Your task to perform on an android device: turn on improve location accuracy Image 0: 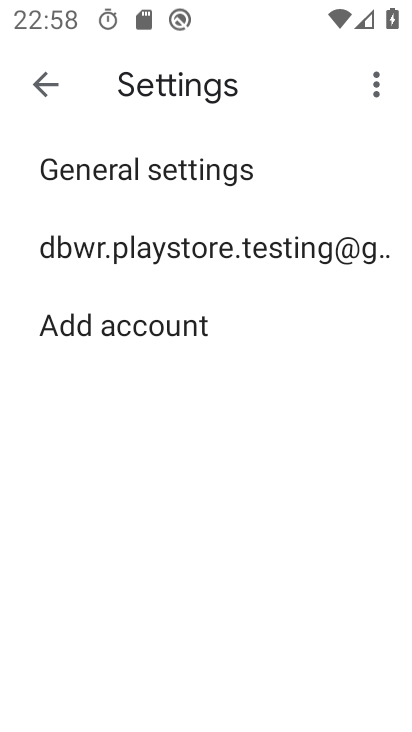
Step 0: press home button
Your task to perform on an android device: turn on improve location accuracy Image 1: 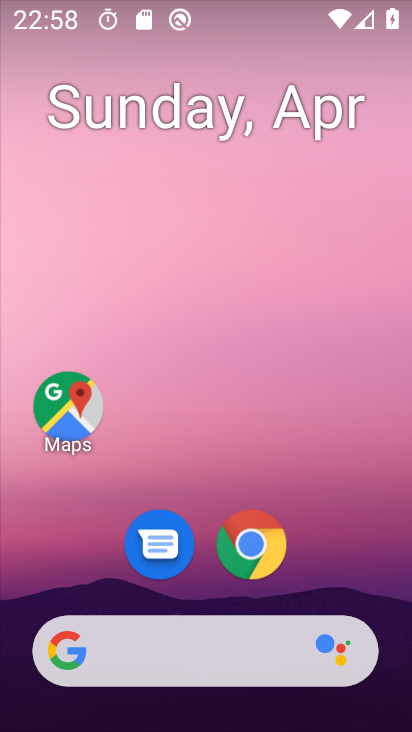
Step 1: drag from (329, 590) to (374, 204)
Your task to perform on an android device: turn on improve location accuracy Image 2: 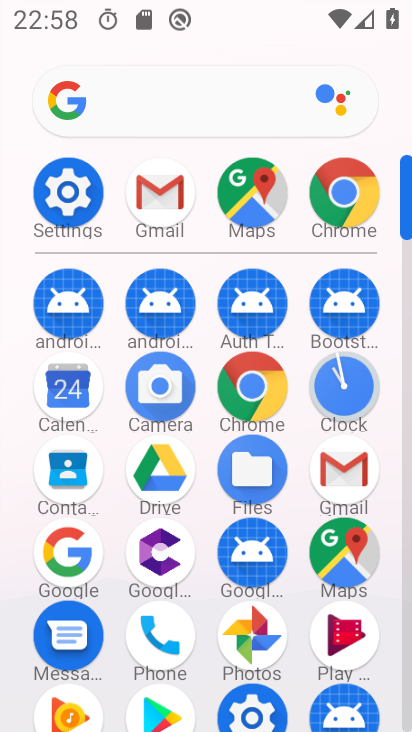
Step 2: click (71, 189)
Your task to perform on an android device: turn on improve location accuracy Image 3: 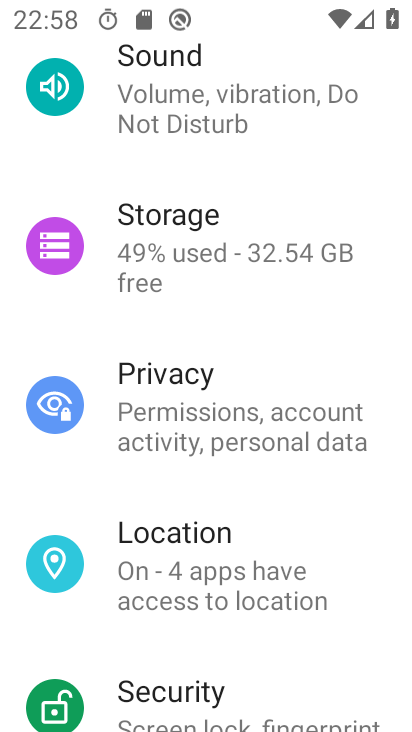
Step 3: click (266, 580)
Your task to perform on an android device: turn on improve location accuracy Image 4: 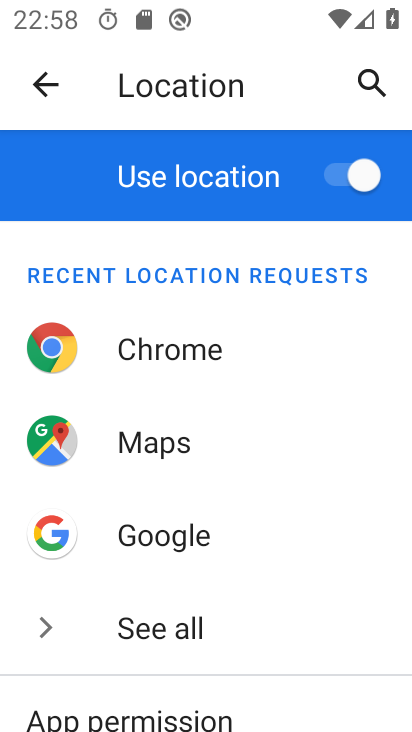
Step 4: drag from (304, 613) to (268, 116)
Your task to perform on an android device: turn on improve location accuracy Image 5: 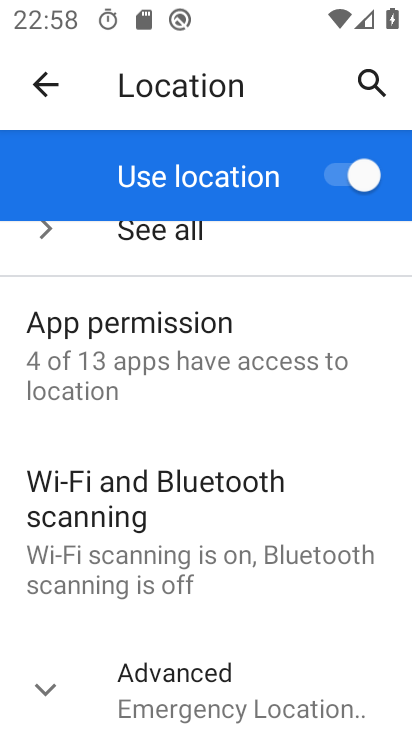
Step 5: drag from (208, 689) to (252, 226)
Your task to perform on an android device: turn on improve location accuracy Image 6: 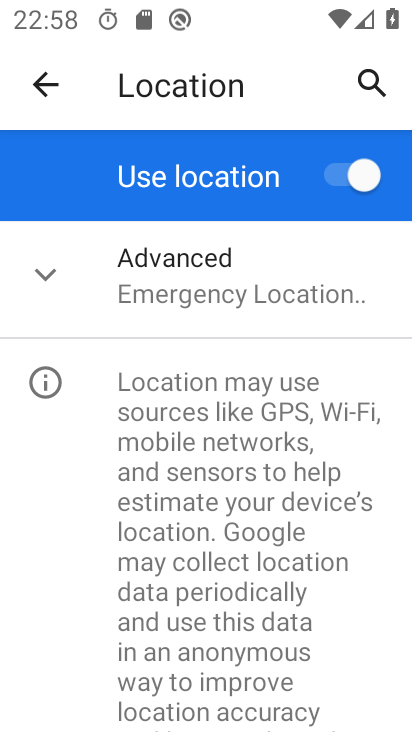
Step 6: click (186, 285)
Your task to perform on an android device: turn on improve location accuracy Image 7: 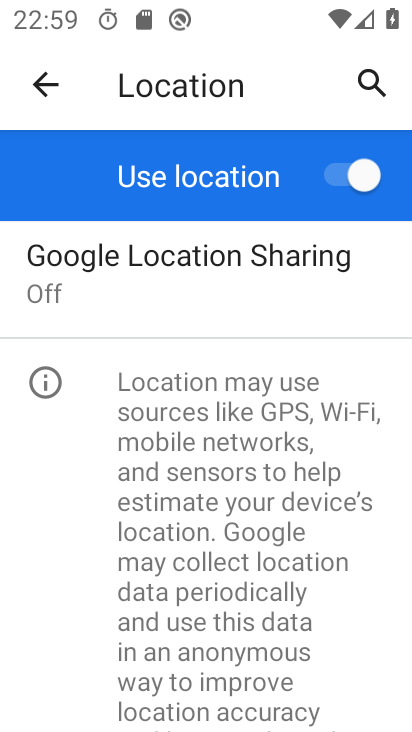
Step 7: drag from (281, 596) to (280, 174)
Your task to perform on an android device: turn on improve location accuracy Image 8: 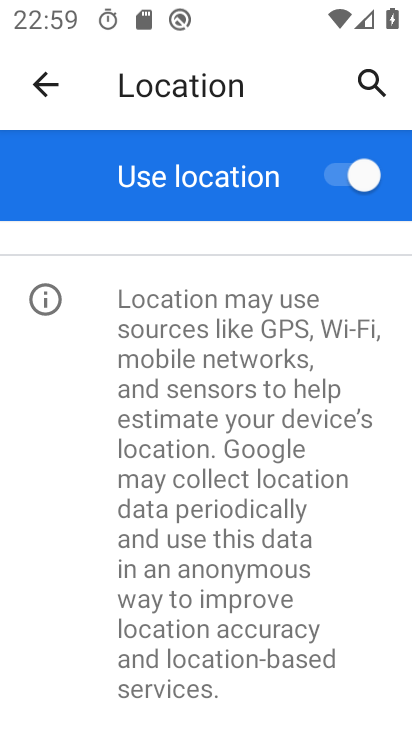
Step 8: drag from (240, 295) to (217, 726)
Your task to perform on an android device: turn on improve location accuracy Image 9: 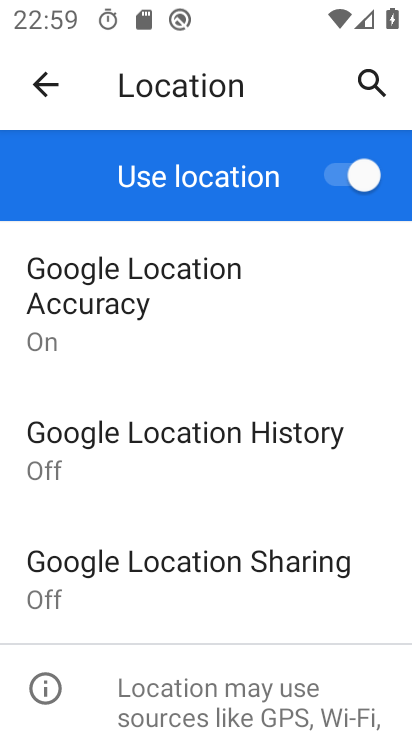
Step 9: click (204, 311)
Your task to perform on an android device: turn on improve location accuracy Image 10: 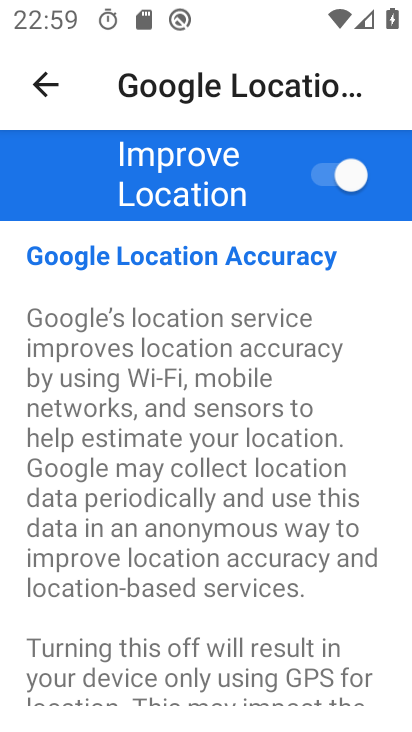
Step 10: task complete